Your task to perform on an android device: uninstall "Spotify" Image 0: 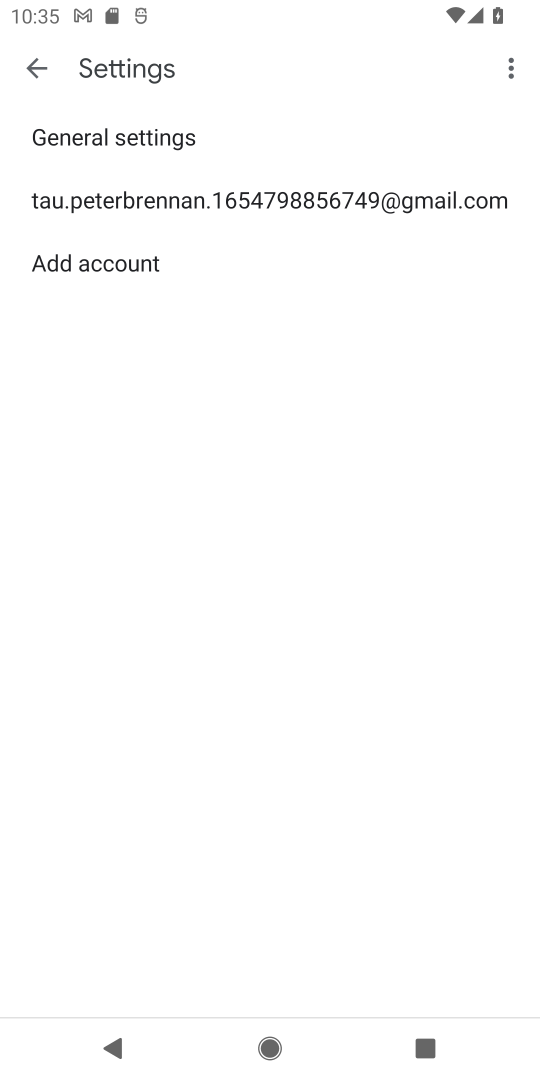
Step 0: press home button
Your task to perform on an android device: uninstall "Spotify" Image 1: 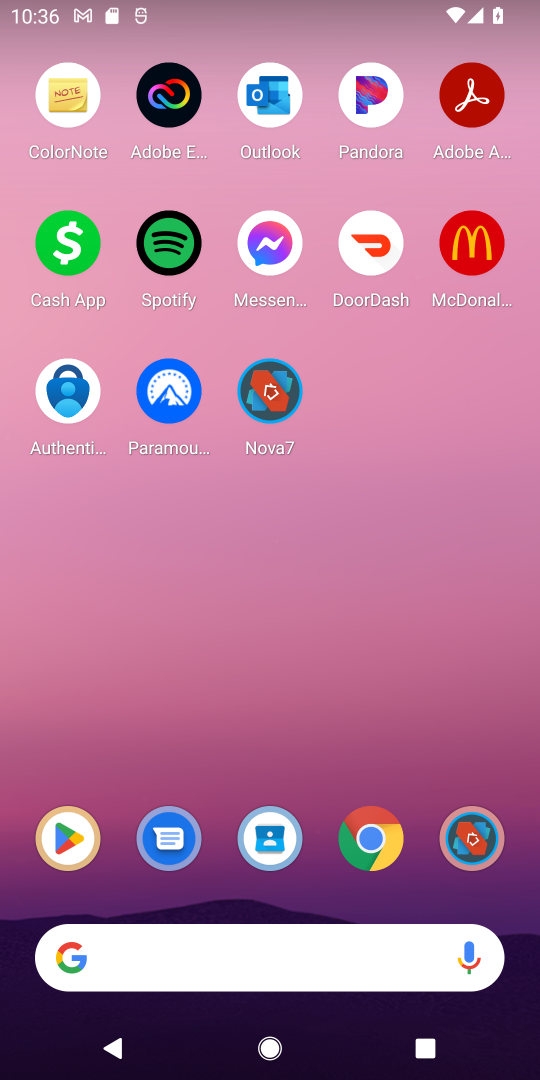
Step 1: click (80, 819)
Your task to perform on an android device: uninstall "Spotify" Image 2: 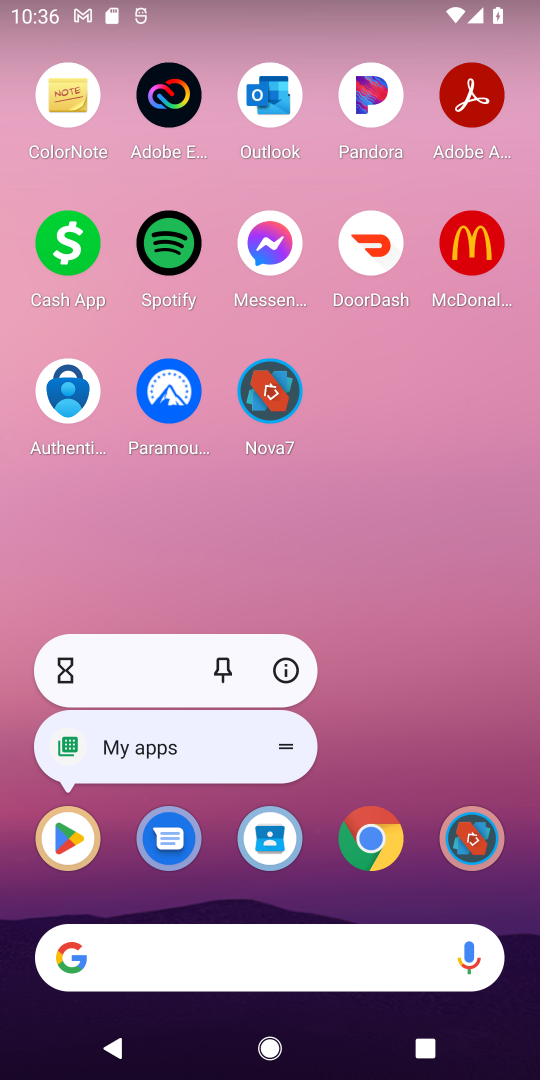
Step 2: click (79, 819)
Your task to perform on an android device: uninstall "Spotify" Image 3: 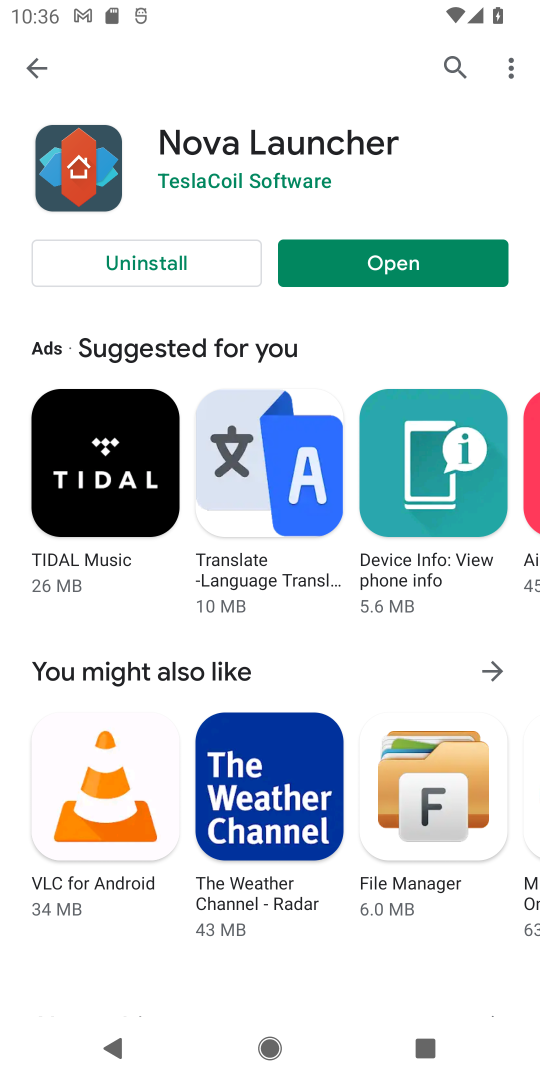
Step 3: click (25, 61)
Your task to perform on an android device: uninstall "Spotify" Image 4: 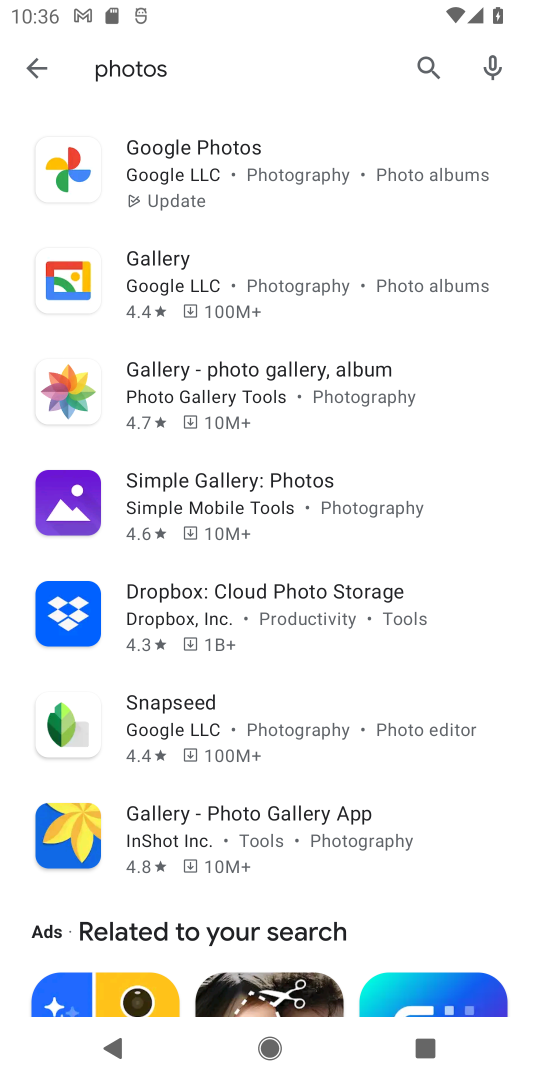
Step 4: click (193, 60)
Your task to perform on an android device: uninstall "Spotify" Image 5: 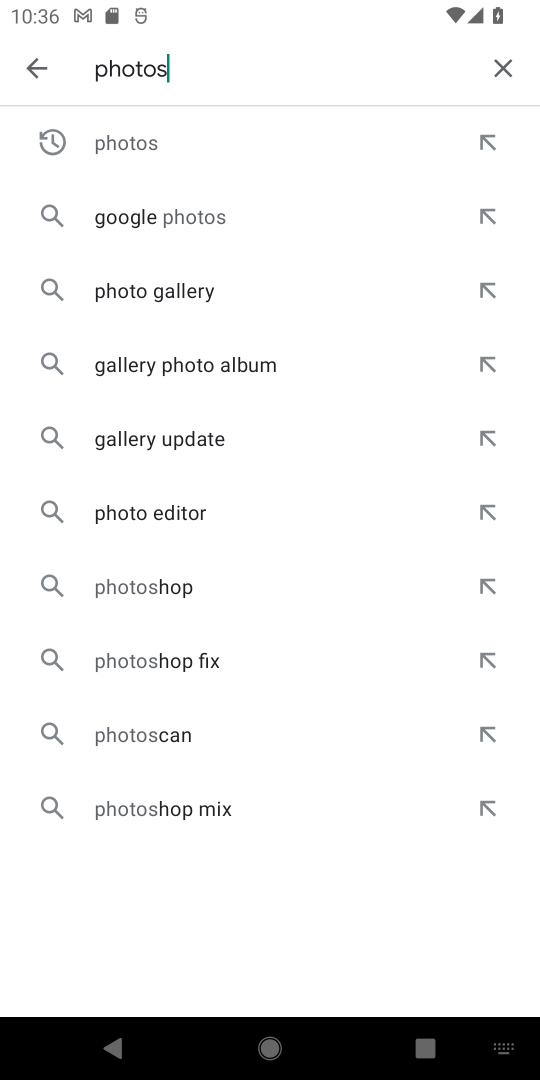
Step 5: click (503, 61)
Your task to perform on an android device: uninstall "Spotify" Image 6: 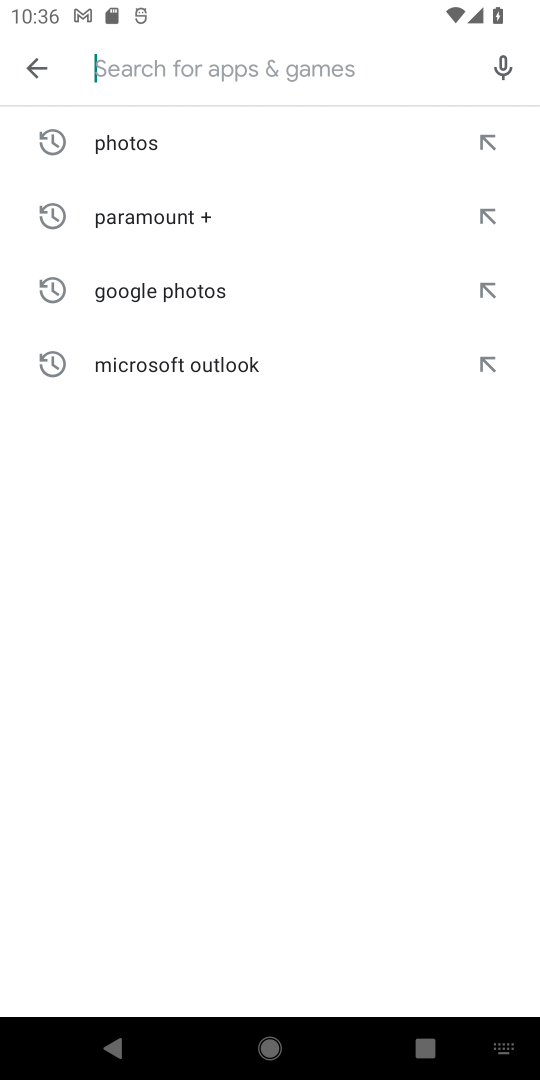
Step 6: type "spotify"
Your task to perform on an android device: uninstall "Spotify" Image 7: 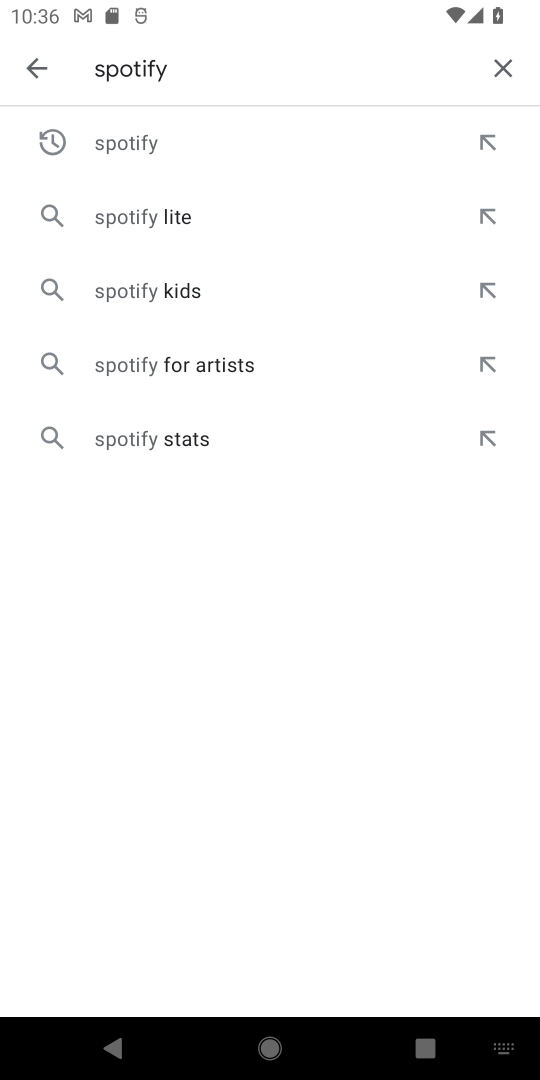
Step 7: click (209, 135)
Your task to perform on an android device: uninstall "Spotify" Image 8: 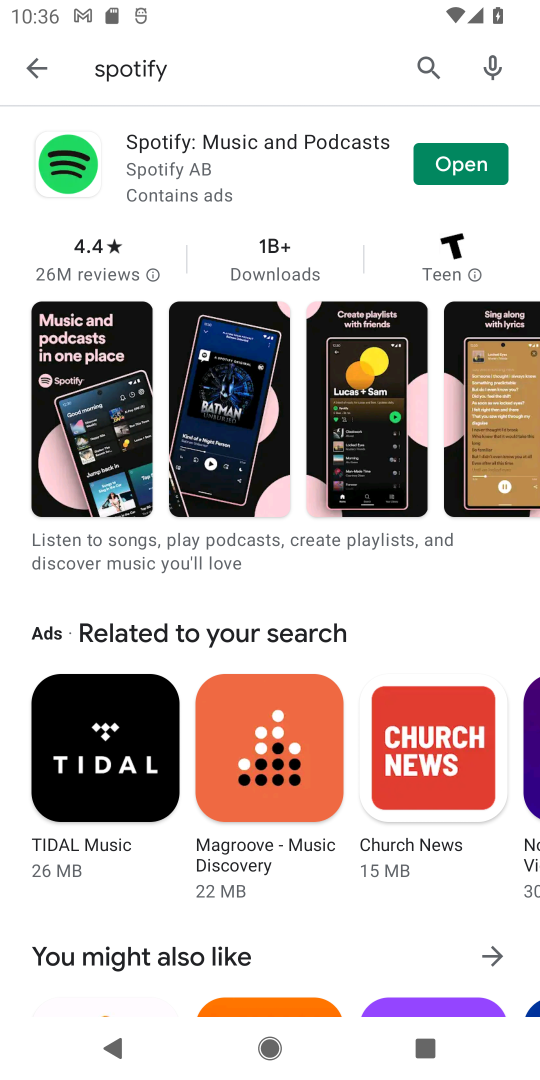
Step 8: click (146, 164)
Your task to perform on an android device: uninstall "Spotify" Image 9: 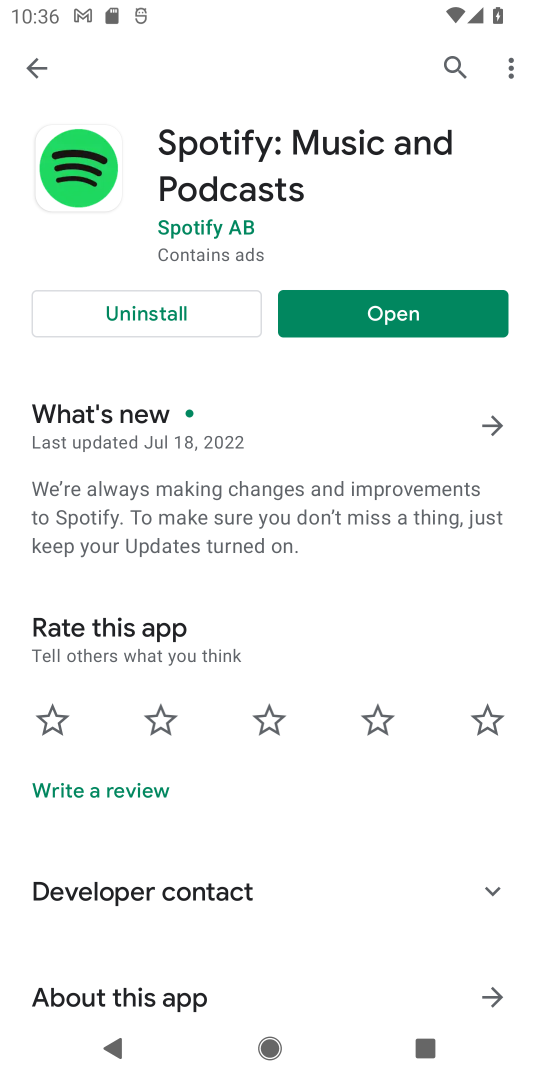
Step 9: click (140, 318)
Your task to perform on an android device: uninstall "Spotify" Image 10: 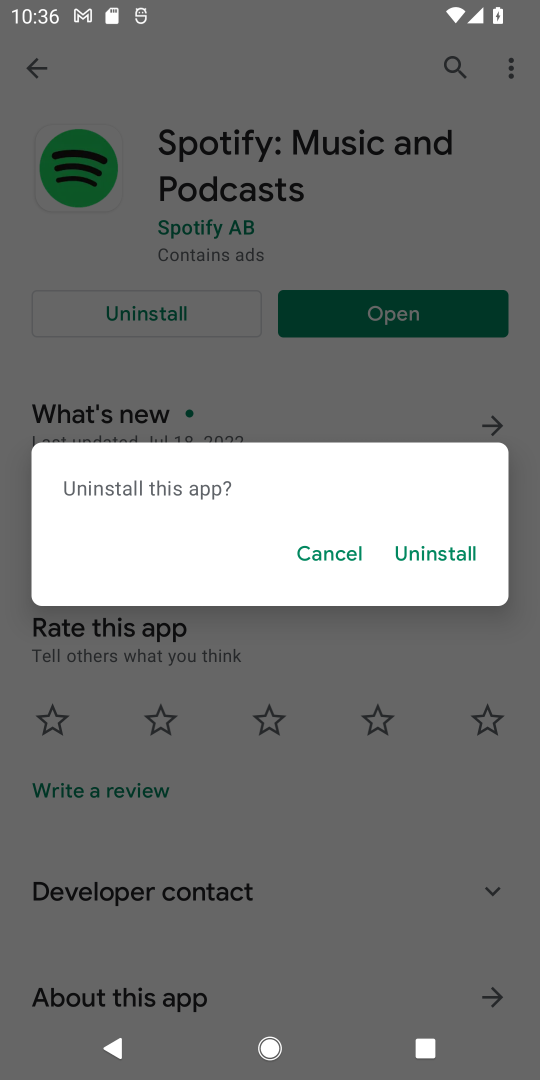
Step 10: click (441, 558)
Your task to perform on an android device: uninstall "Spotify" Image 11: 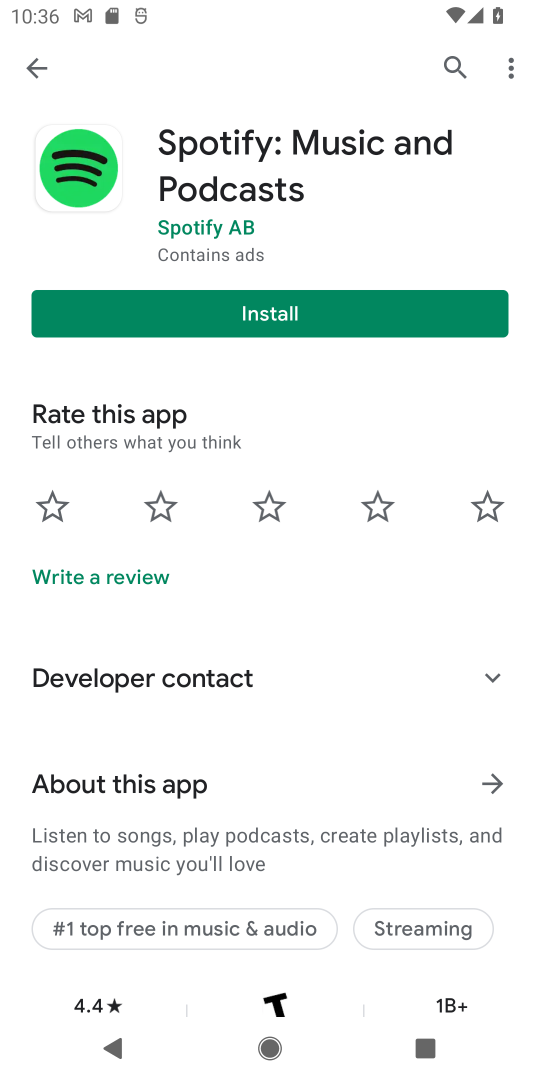
Step 11: task complete